Your task to perform on an android device: Go to display settings Image 0: 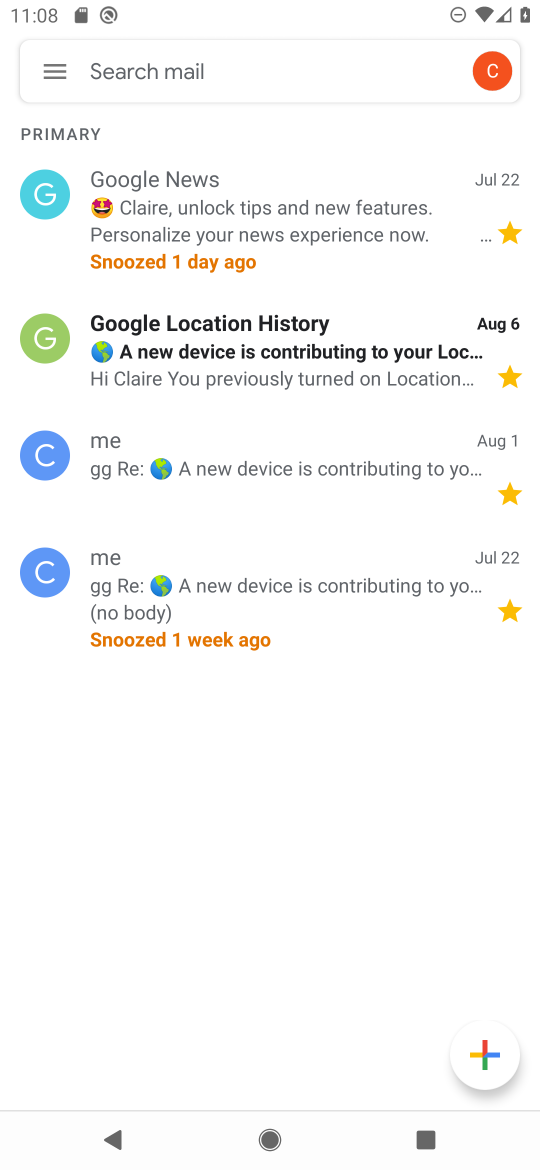
Step 0: press home button
Your task to perform on an android device: Go to display settings Image 1: 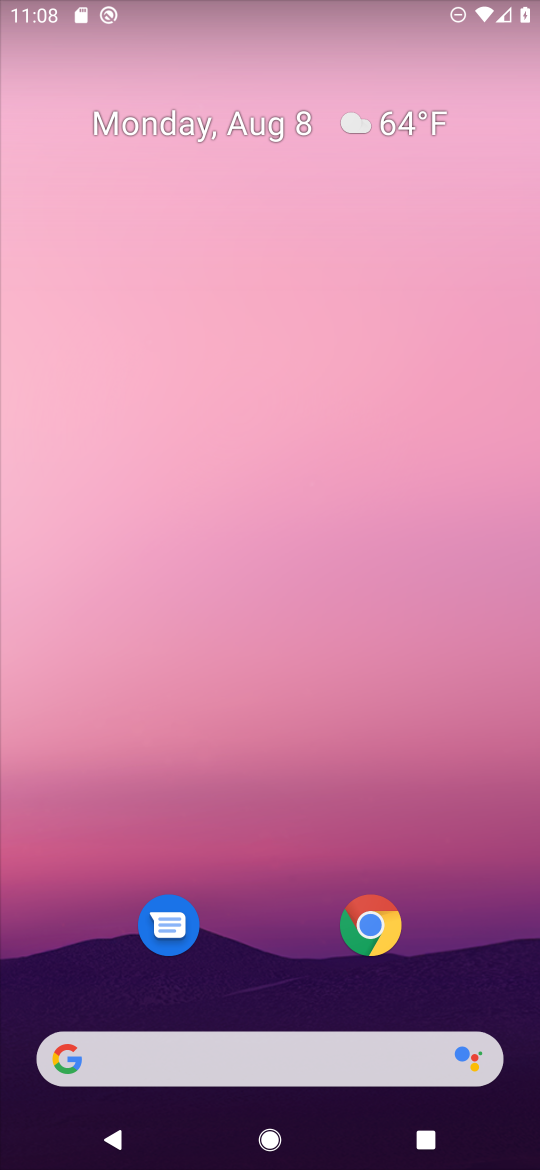
Step 1: drag from (320, 960) to (296, 167)
Your task to perform on an android device: Go to display settings Image 2: 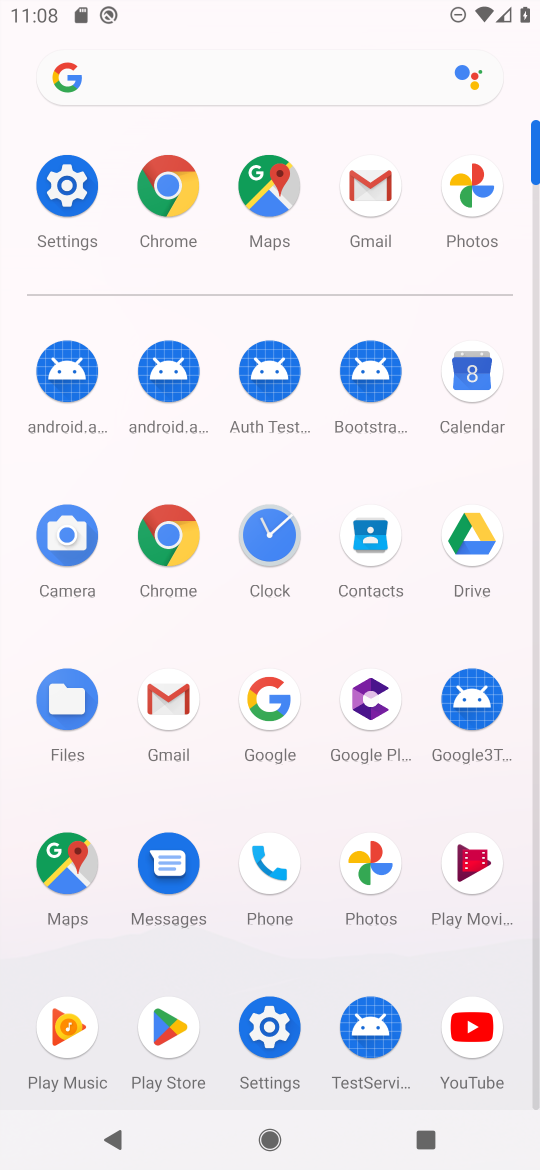
Step 2: click (255, 1027)
Your task to perform on an android device: Go to display settings Image 3: 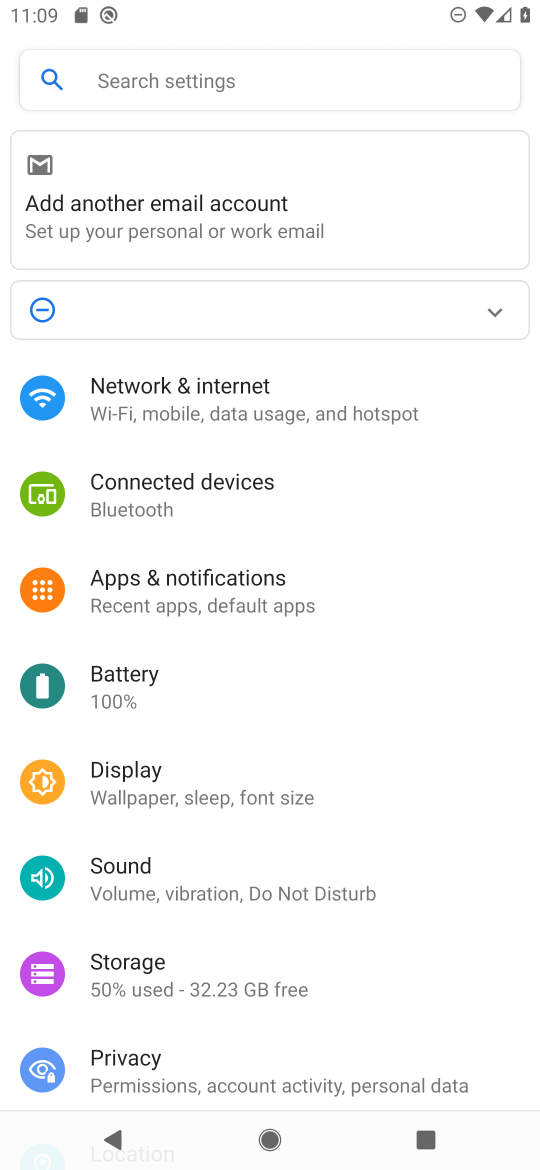
Step 3: click (157, 790)
Your task to perform on an android device: Go to display settings Image 4: 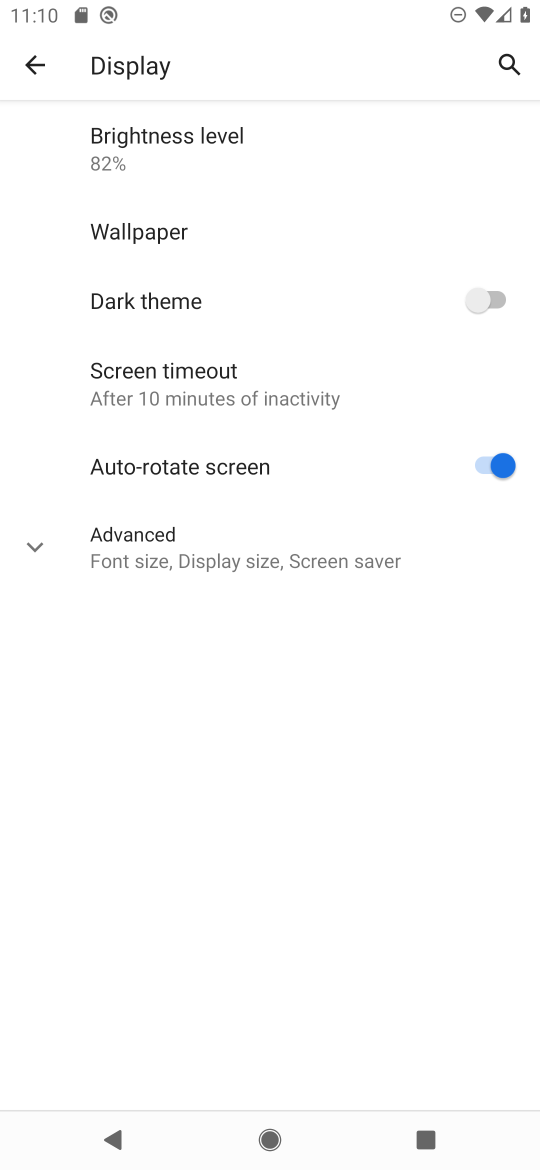
Step 4: task complete